Your task to perform on an android device: Open Wikipedia Image 0: 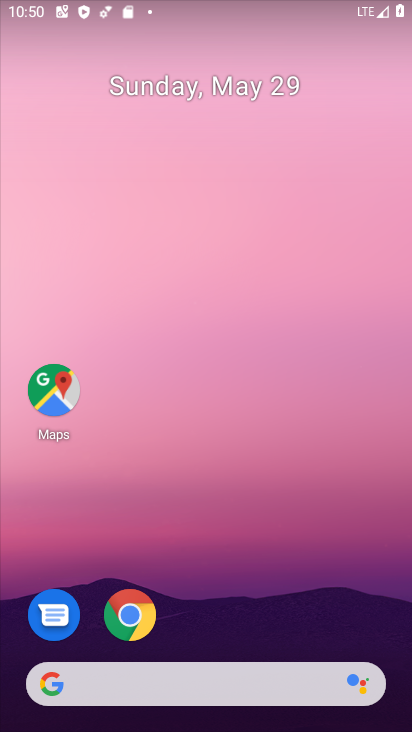
Step 0: drag from (369, 640) to (371, 308)
Your task to perform on an android device: Open Wikipedia Image 1: 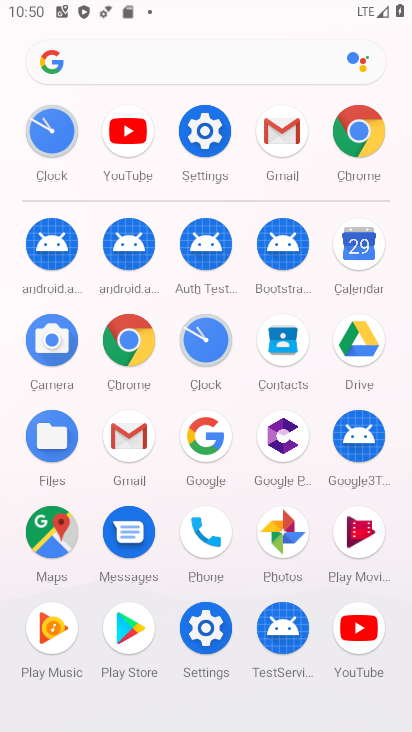
Step 1: click (142, 371)
Your task to perform on an android device: Open Wikipedia Image 2: 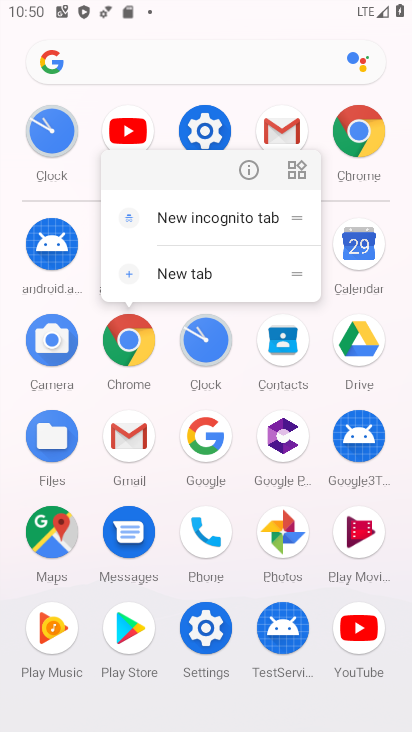
Step 2: click (142, 371)
Your task to perform on an android device: Open Wikipedia Image 3: 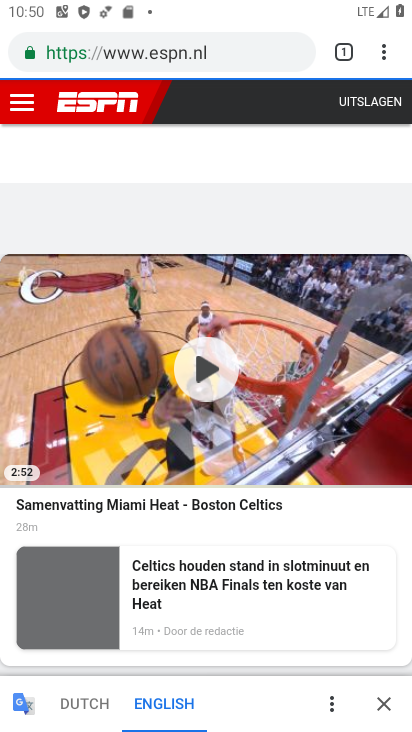
Step 3: press back button
Your task to perform on an android device: Open Wikipedia Image 4: 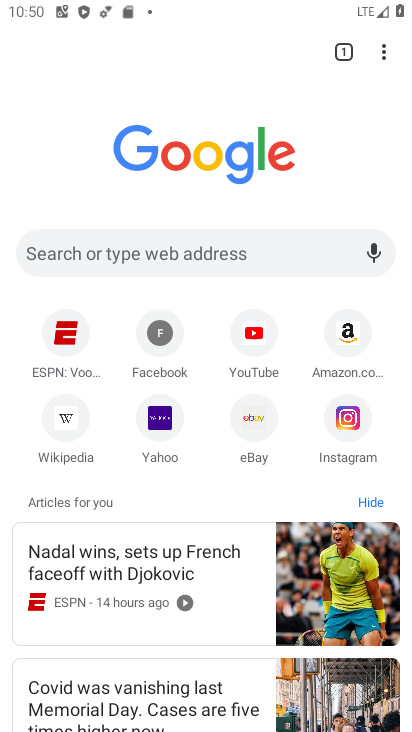
Step 4: click (54, 431)
Your task to perform on an android device: Open Wikipedia Image 5: 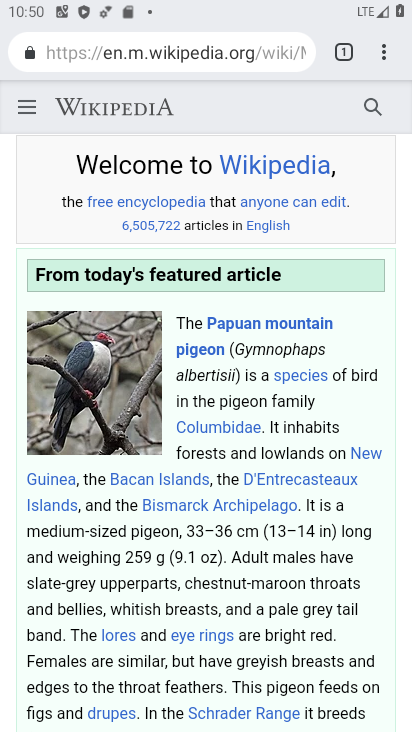
Step 5: task complete